Your task to perform on an android device: turn on the 12-hour format for clock Image 0: 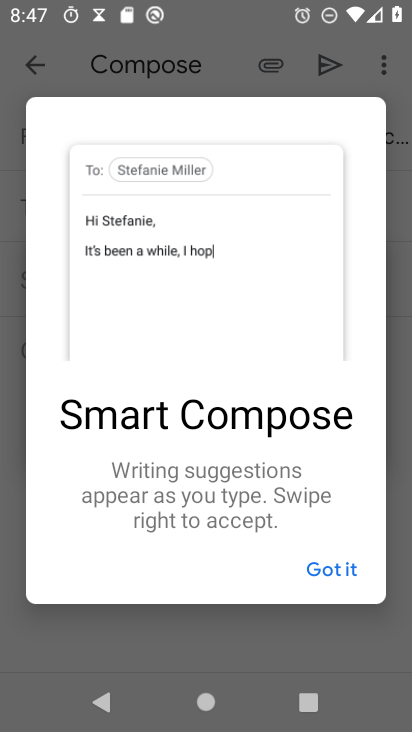
Step 0: press home button
Your task to perform on an android device: turn on the 12-hour format for clock Image 1: 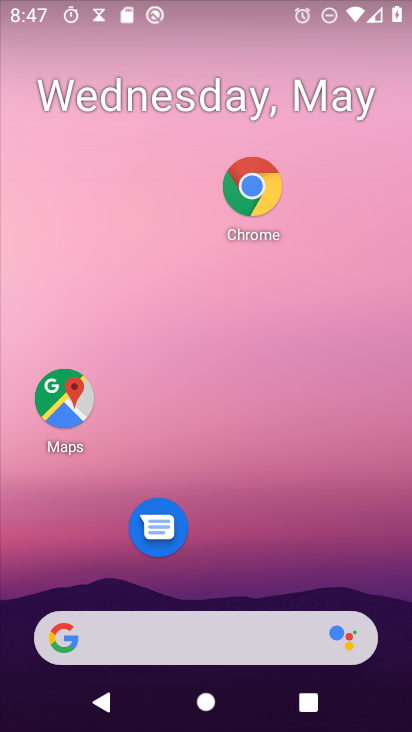
Step 1: drag from (269, 466) to (358, 9)
Your task to perform on an android device: turn on the 12-hour format for clock Image 2: 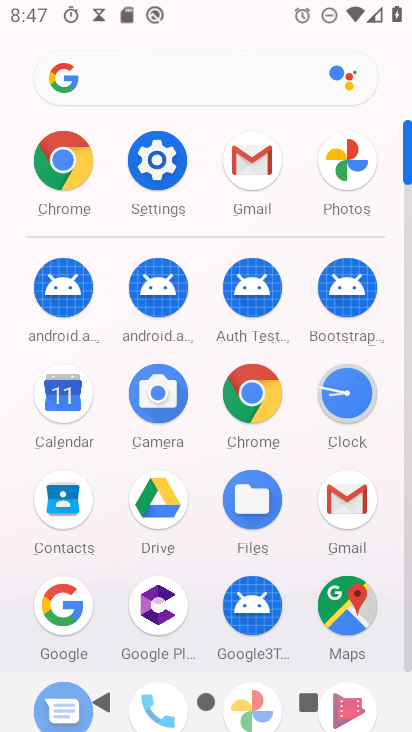
Step 2: click (340, 386)
Your task to perform on an android device: turn on the 12-hour format for clock Image 3: 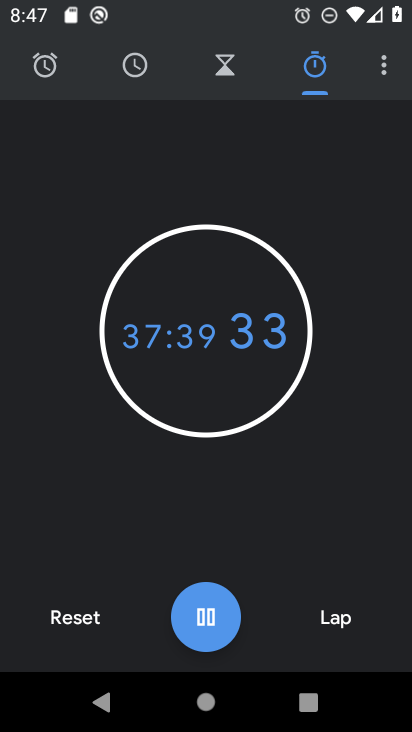
Step 3: click (386, 54)
Your task to perform on an android device: turn on the 12-hour format for clock Image 4: 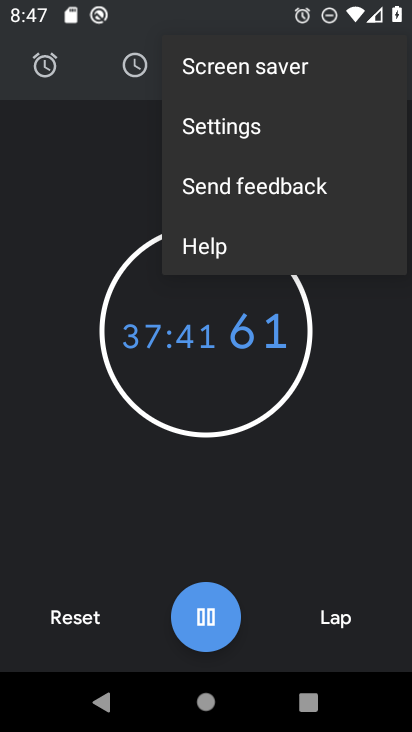
Step 4: click (243, 130)
Your task to perform on an android device: turn on the 12-hour format for clock Image 5: 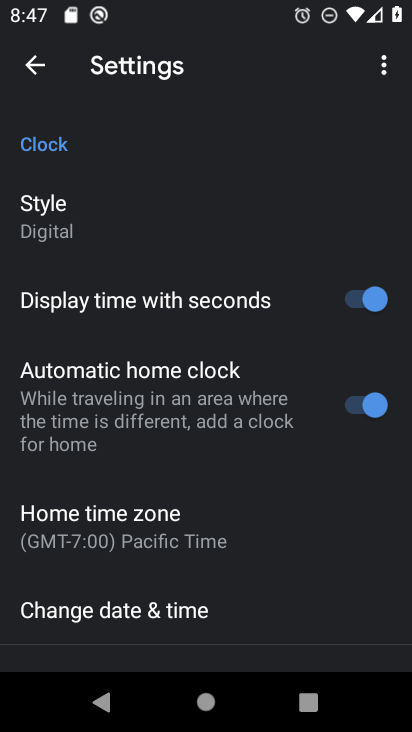
Step 5: click (174, 610)
Your task to perform on an android device: turn on the 12-hour format for clock Image 6: 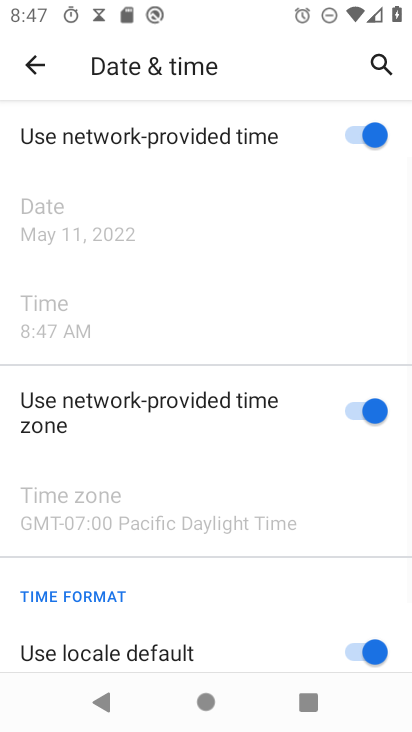
Step 6: task complete